Your task to perform on an android device: Open sound settings Image 0: 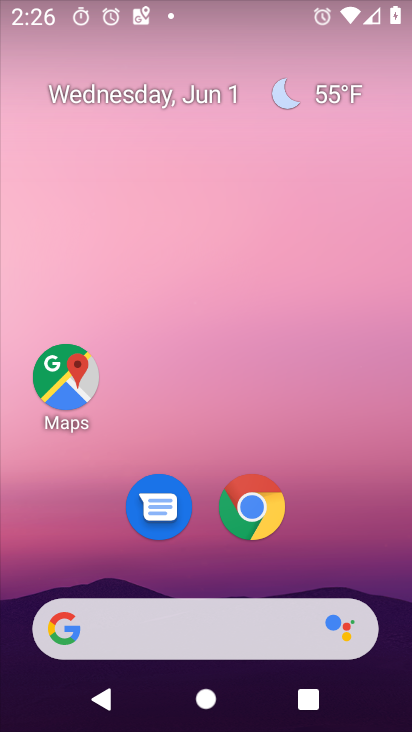
Step 0: drag from (385, 585) to (382, 27)
Your task to perform on an android device: Open sound settings Image 1: 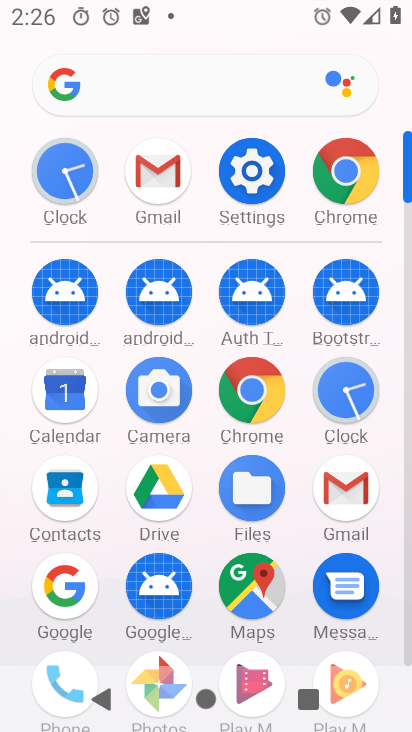
Step 1: click (248, 179)
Your task to perform on an android device: Open sound settings Image 2: 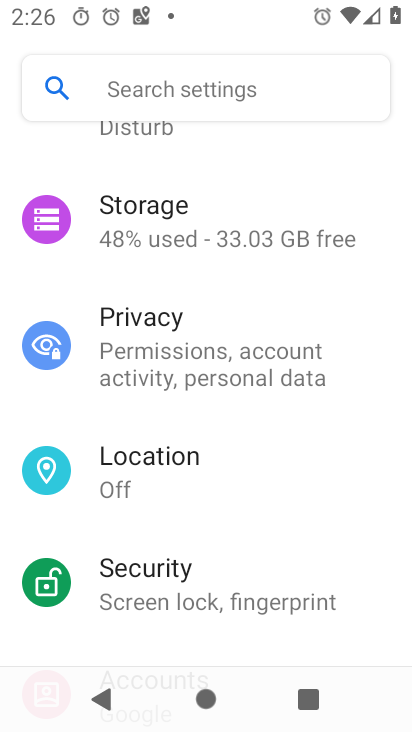
Step 2: drag from (383, 525) to (409, 103)
Your task to perform on an android device: Open sound settings Image 3: 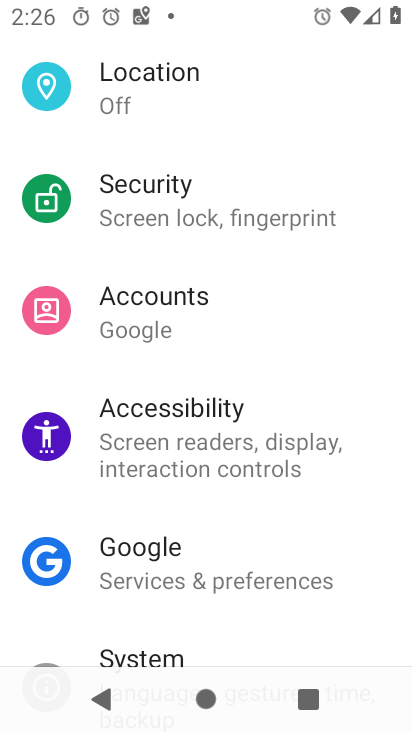
Step 3: drag from (396, 187) to (365, 707)
Your task to perform on an android device: Open sound settings Image 4: 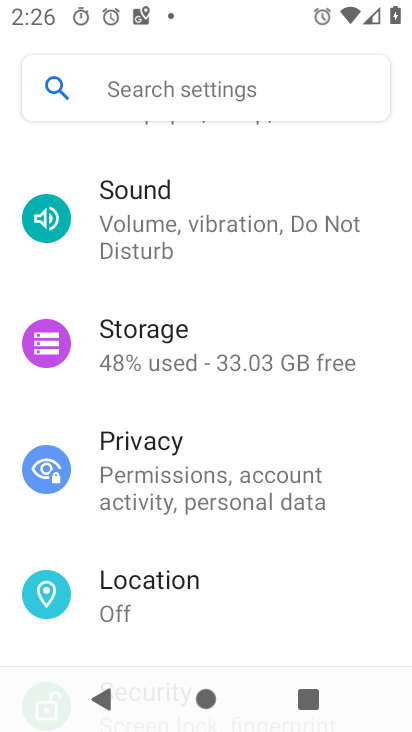
Step 4: click (144, 231)
Your task to perform on an android device: Open sound settings Image 5: 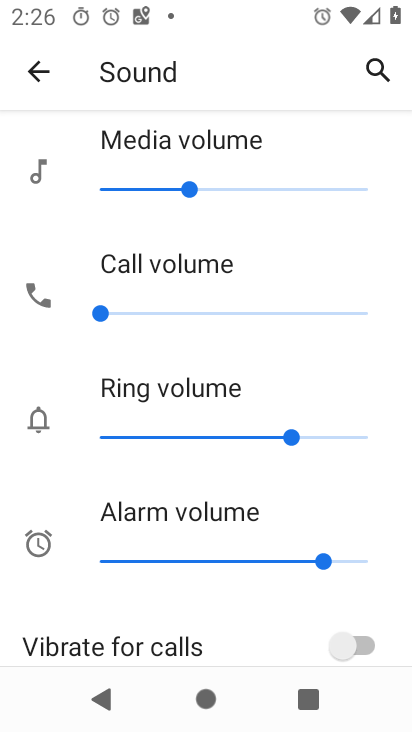
Step 5: task complete